Your task to perform on an android device: find which apps use the phone's location Image 0: 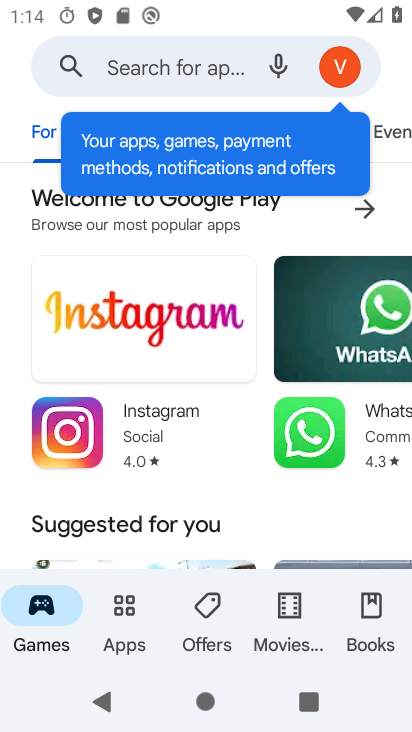
Step 0: press home button
Your task to perform on an android device: find which apps use the phone's location Image 1: 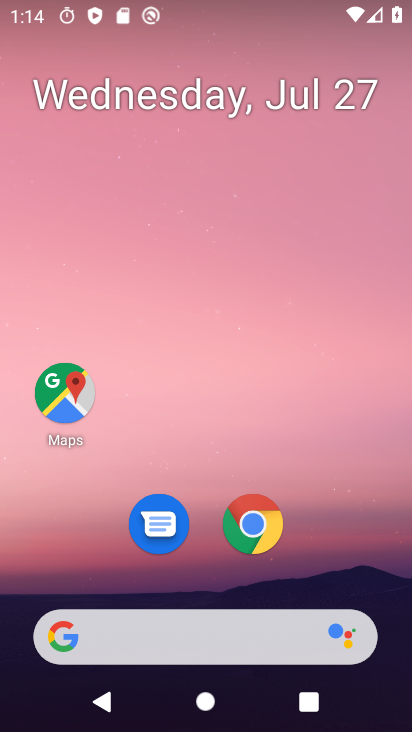
Step 1: drag from (350, 522) to (367, 45)
Your task to perform on an android device: find which apps use the phone's location Image 2: 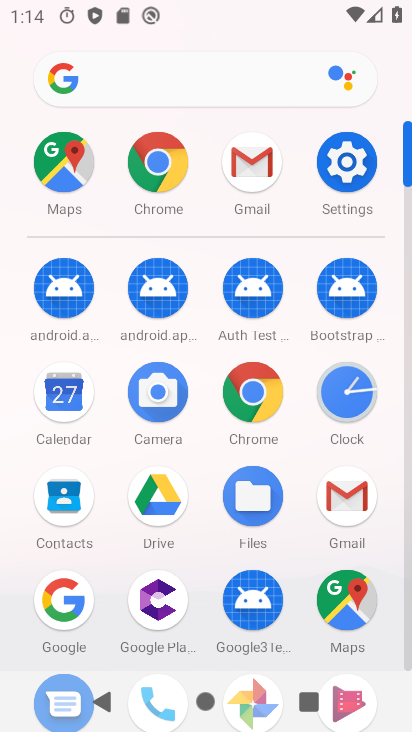
Step 2: click (350, 163)
Your task to perform on an android device: find which apps use the phone's location Image 3: 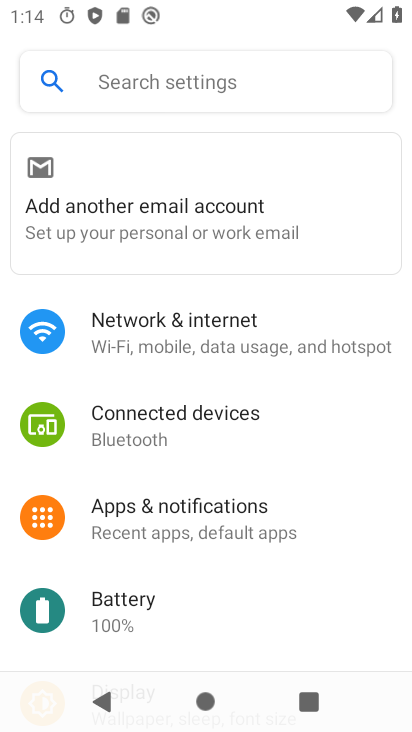
Step 3: drag from (259, 492) to (350, 92)
Your task to perform on an android device: find which apps use the phone's location Image 4: 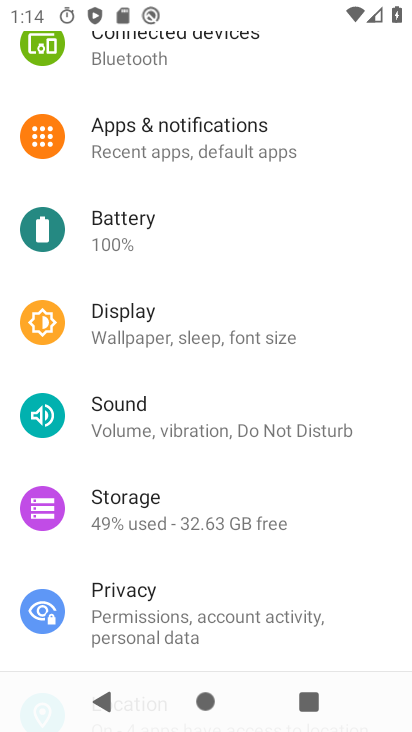
Step 4: drag from (258, 464) to (268, 72)
Your task to perform on an android device: find which apps use the phone's location Image 5: 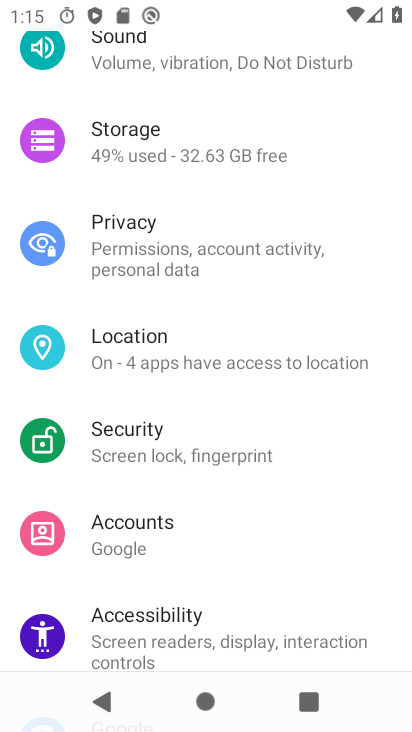
Step 5: click (176, 349)
Your task to perform on an android device: find which apps use the phone's location Image 6: 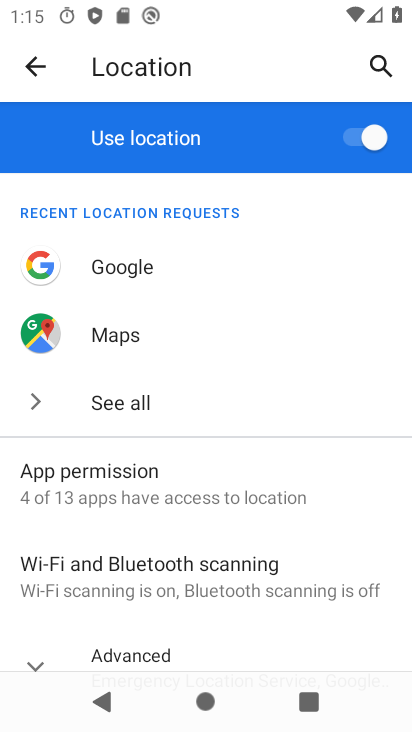
Step 6: drag from (270, 358) to (270, 211)
Your task to perform on an android device: find which apps use the phone's location Image 7: 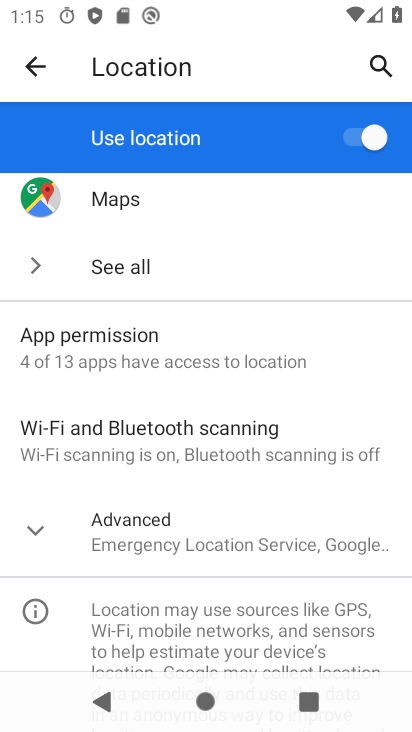
Step 7: drag from (250, 266) to (212, 421)
Your task to perform on an android device: find which apps use the phone's location Image 8: 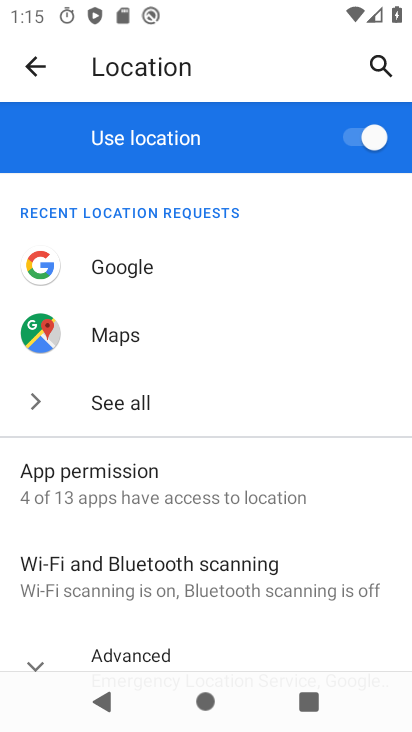
Step 8: click (148, 475)
Your task to perform on an android device: find which apps use the phone's location Image 9: 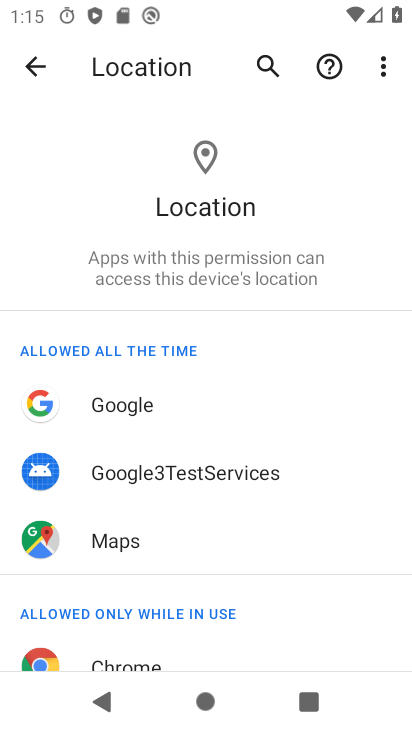
Step 9: task complete